Your task to perform on an android device: Open internet settings Image 0: 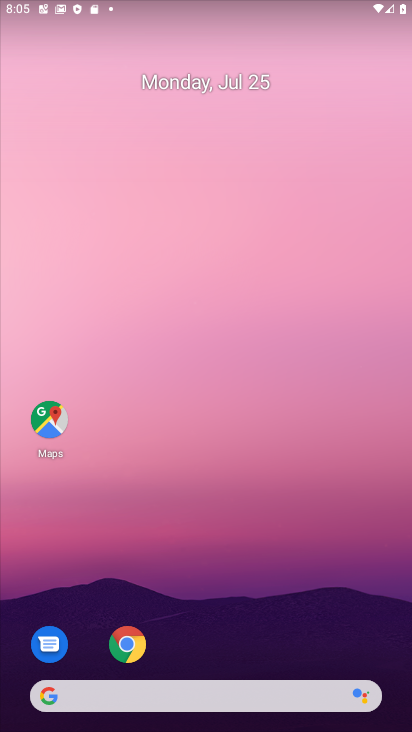
Step 0: drag from (234, 615) to (225, 136)
Your task to perform on an android device: Open internet settings Image 1: 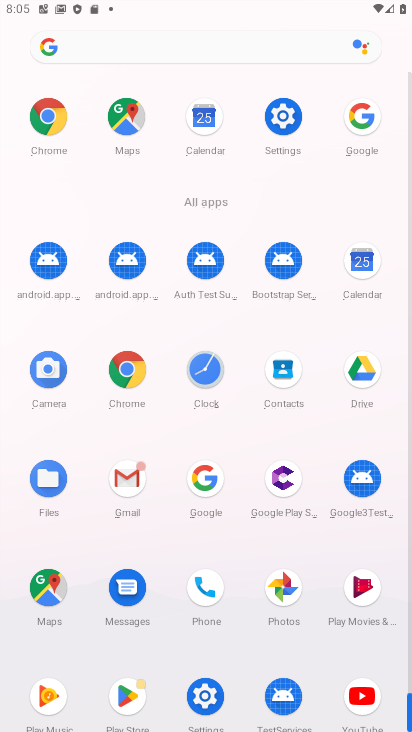
Step 1: click (280, 117)
Your task to perform on an android device: Open internet settings Image 2: 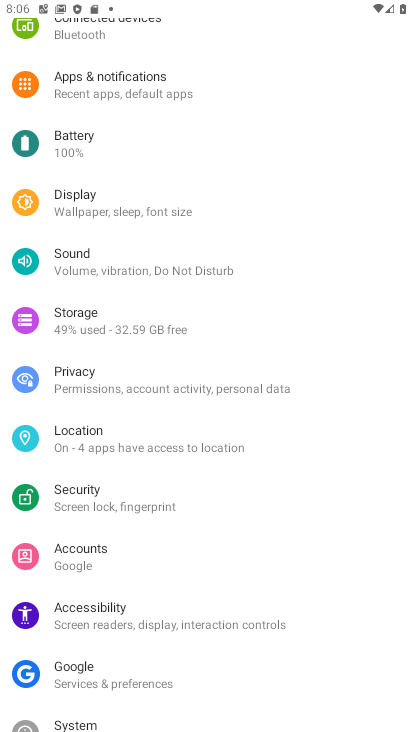
Step 2: drag from (163, 158) to (230, 728)
Your task to perform on an android device: Open internet settings Image 3: 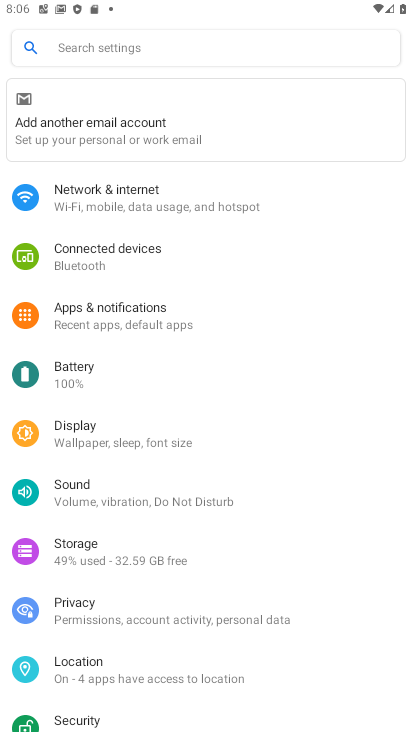
Step 3: click (185, 208)
Your task to perform on an android device: Open internet settings Image 4: 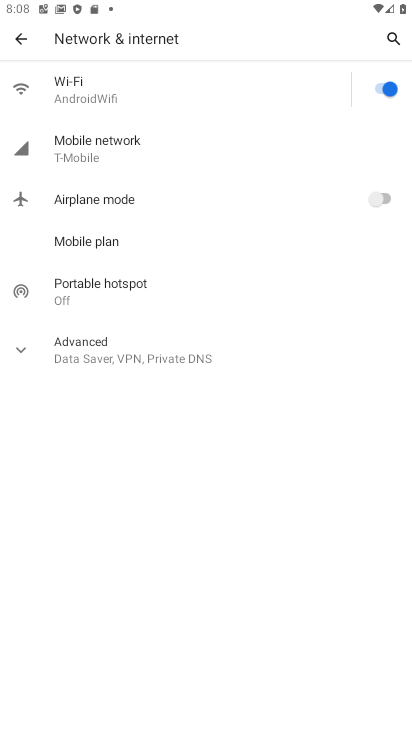
Step 4: click (159, 135)
Your task to perform on an android device: Open internet settings Image 5: 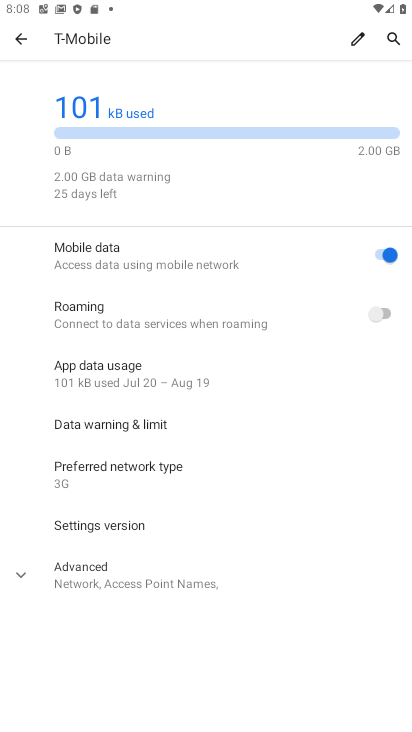
Step 5: task complete